Your task to perform on an android device: delete location history Image 0: 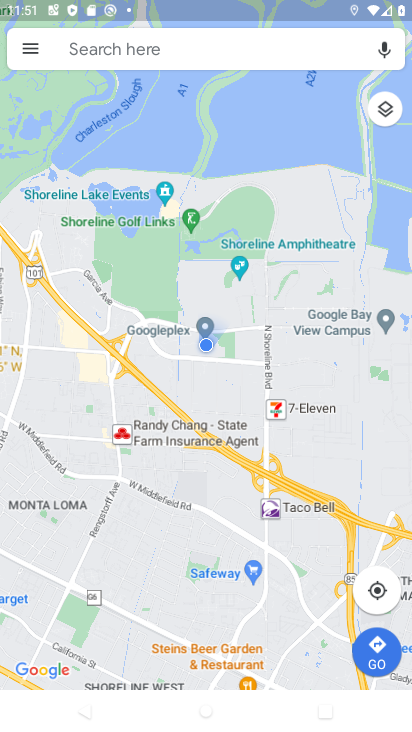
Step 0: click (16, 36)
Your task to perform on an android device: delete location history Image 1: 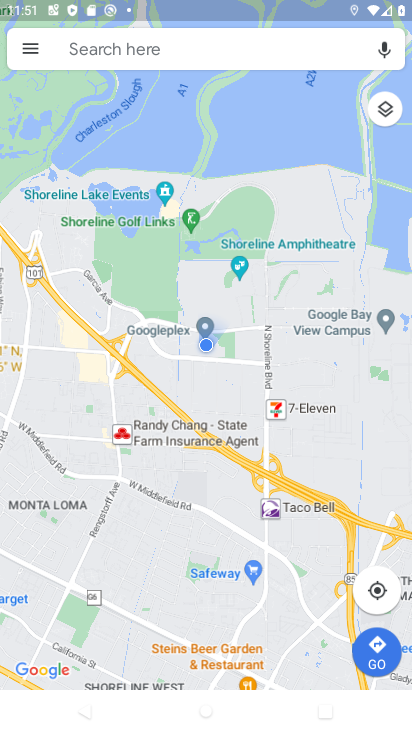
Step 1: click (26, 46)
Your task to perform on an android device: delete location history Image 2: 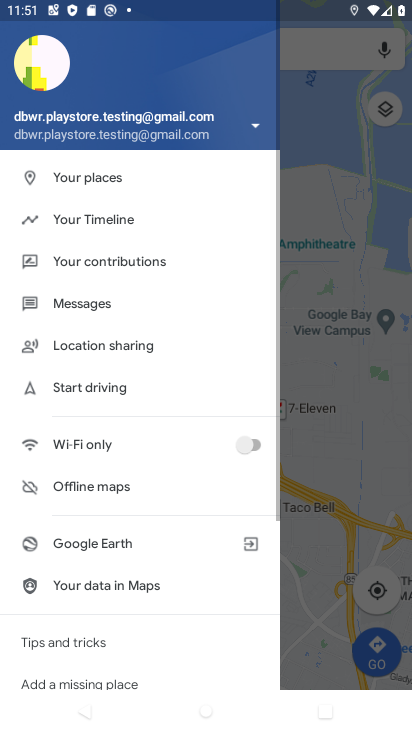
Step 2: click (139, 219)
Your task to perform on an android device: delete location history Image 3: 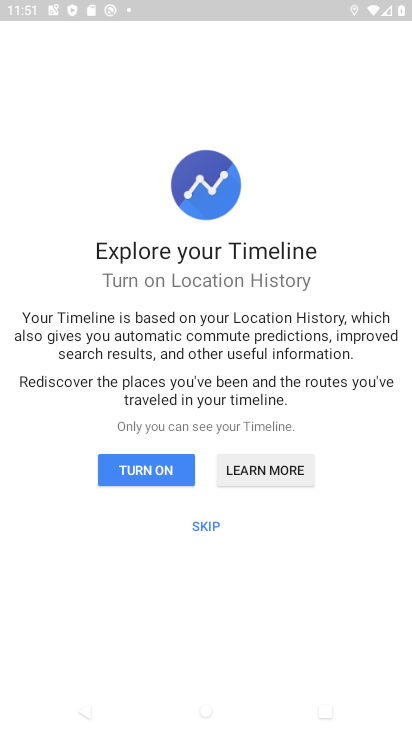
Step 3: click (206, 530)
Your task to perform on an android device: delete location history Image 4: 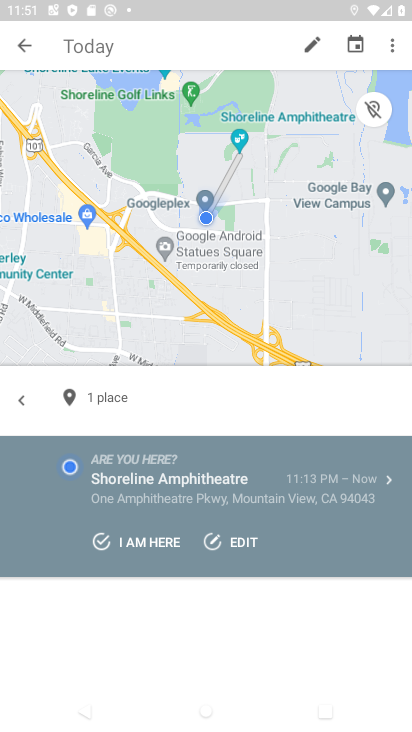
Step 4: click (388, 37)
Your task to perform on an android device: delete location history Image 5: 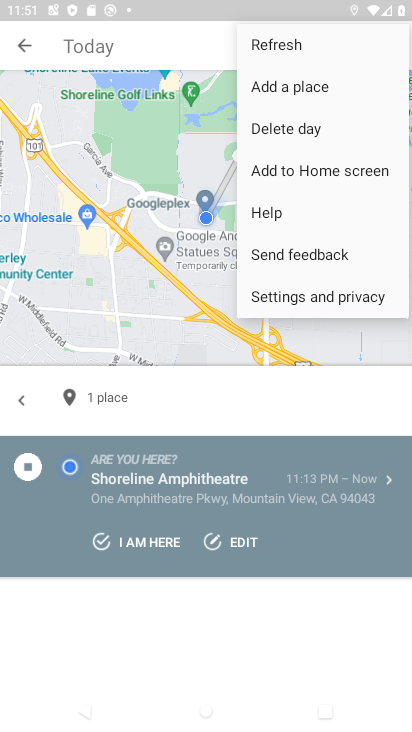
Step 5: click (296, 296)
Your task to perform on an android device: delete location history Image 6: 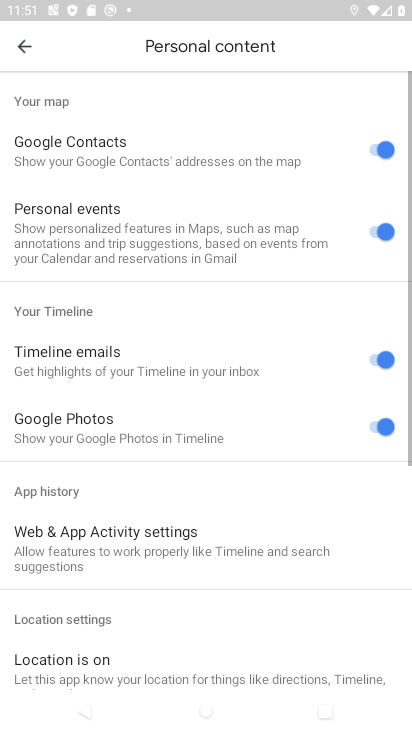
Step 6: drag from (139, 546) to (225, 7)
Your task to perform on an android device: delete location history Image 7: 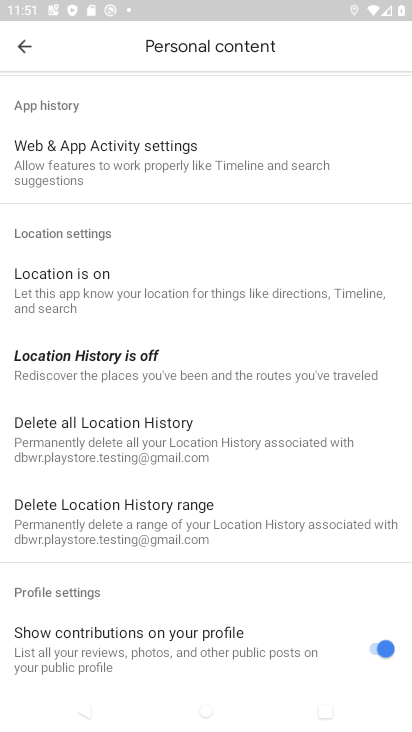
Step 7: click (111, 433)
Your task to perform on an android device: delete location history Image 8: 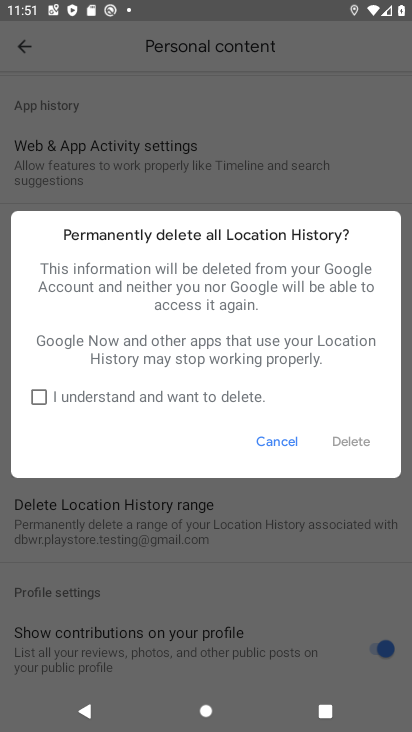
Step 8: click (69, 394)
Your task to perform on an android device: delete location history Image 9: 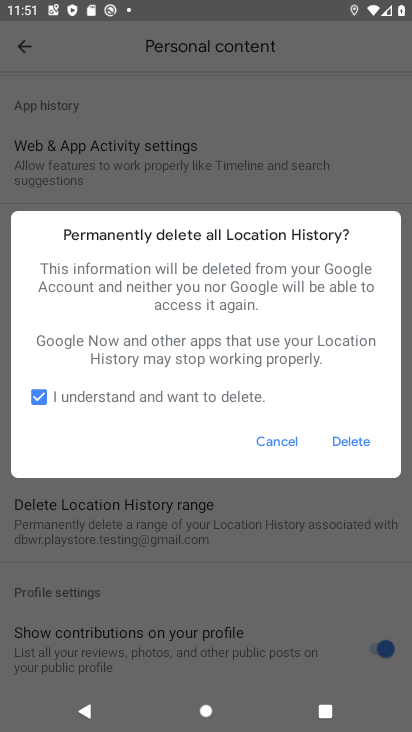
Step 9: click (359, 442)
Your task to perform on an android device: delete location history Image 10: 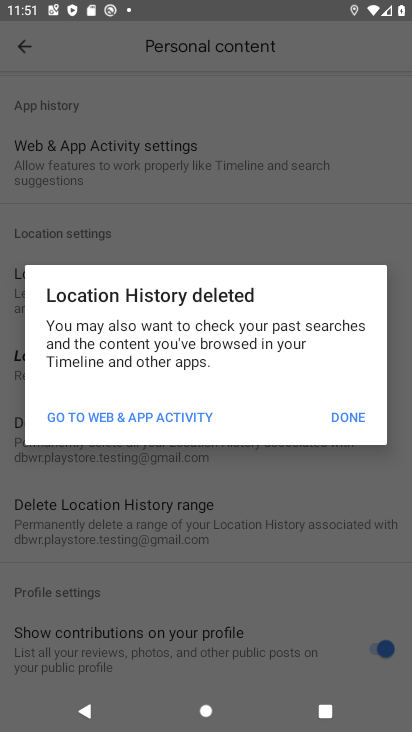
Step 10: click (363, 419)
Your task to perform on an android device: delete location history Image 11: 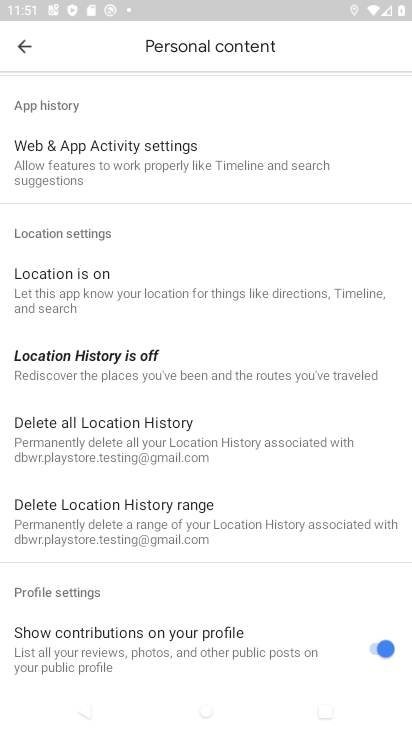
Step 11: task complete